Your task to perform on an android device: Is it going to rain tomorrow? Image 0: 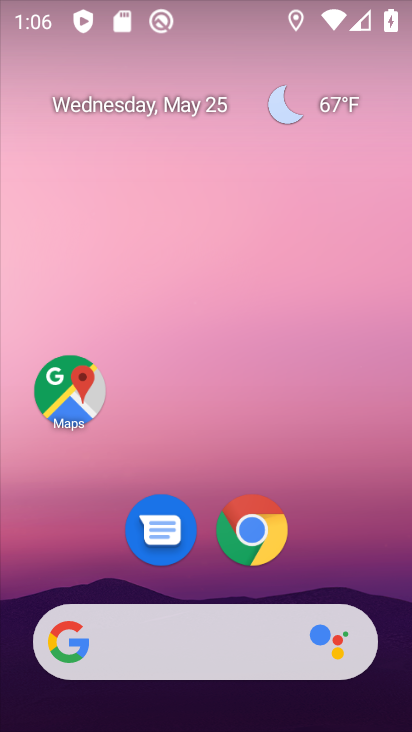
Step 0: drag from (345, 548) to (263, 103)
Your task to perform on an android device: Is it going to rain tomorrow? Image 1: 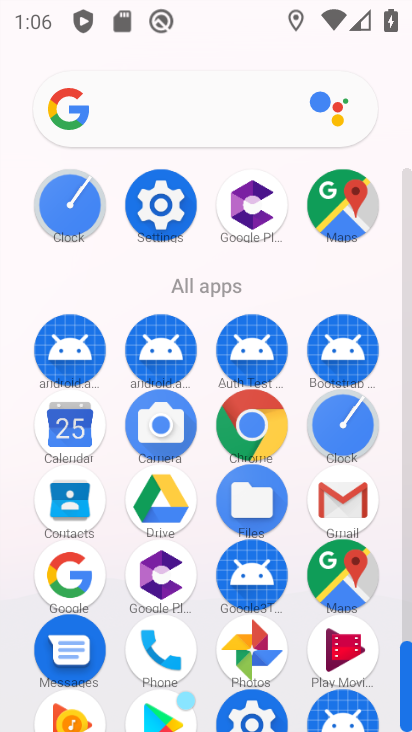
Step 1: click (65, 575)
Your task to perform on an android device: Is it going to rain tomorrow? Image 2: 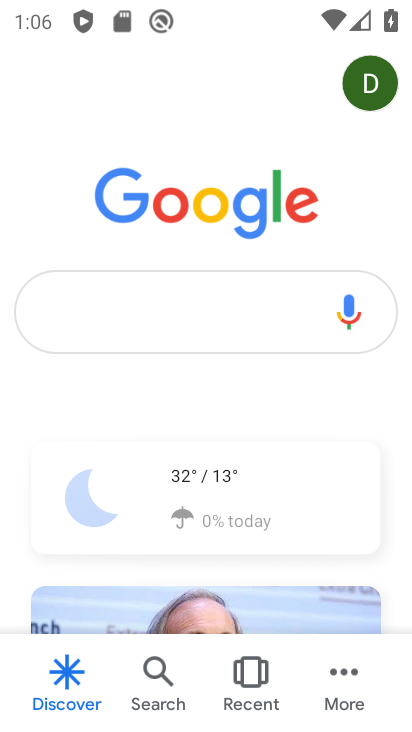
Step 2: click (173, 307)
Your task to perform on an android device: Is it going to rain tomorrow? Image 3: 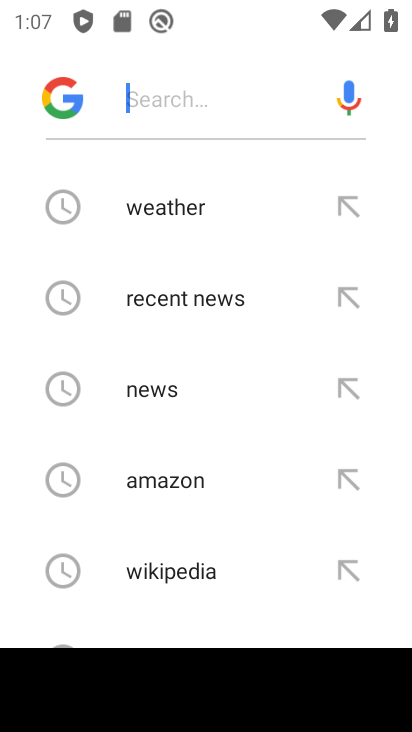
Step 3: type "Is it going to rain tomorrow"
Your task to perform on an android device: Is it going to rain tomorrow? Image 4: 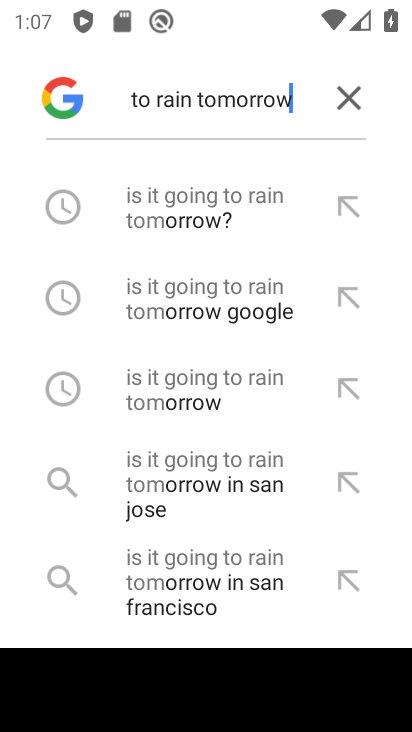
Step 4: type ""
Your task to perform on an android device: Is it going to rain tomorrow? Image 5: 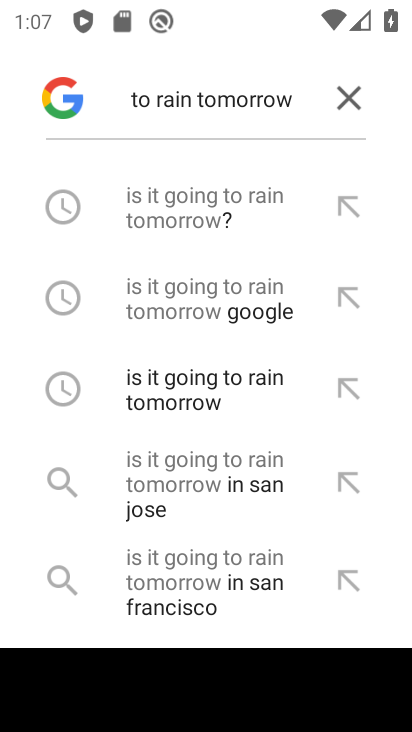
Step 5: click (158, 211)
Your task to perform on an android device: Is it going to rain tomorrow? Image 6: 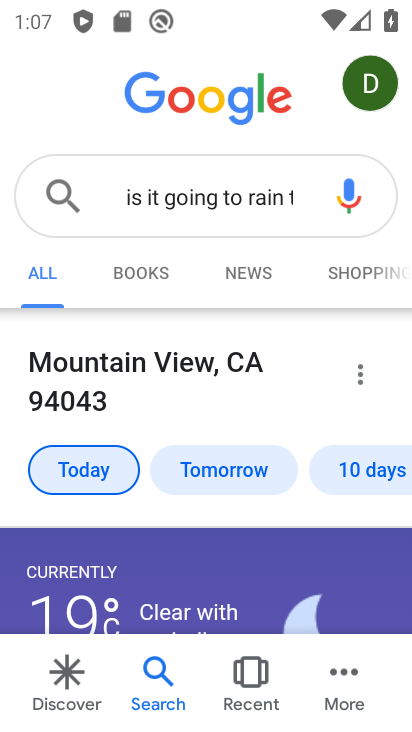
Step 6: task complete